Your task to perform on an android device: check google app version Image 0: 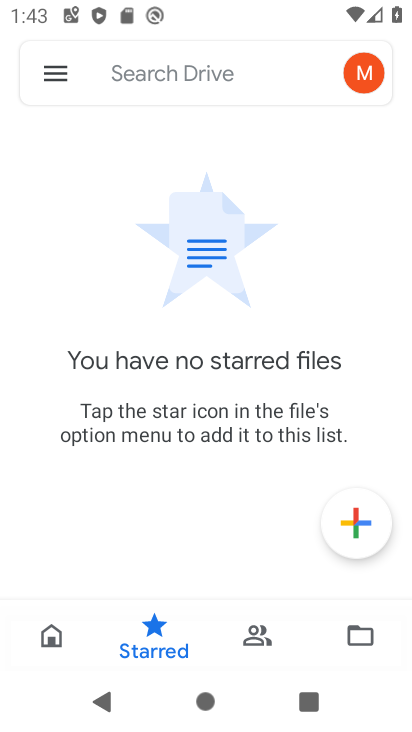
Step 0: press home button
Your task to perform on an android device: check google app version Image 1: 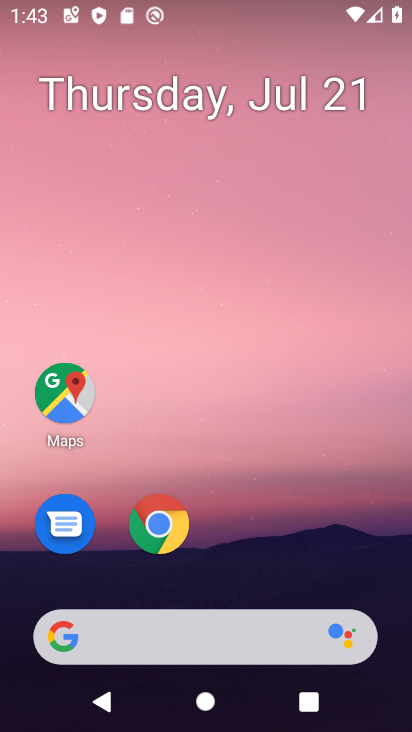
Step 1: drag from (257, 507) to (245, 6)
Your task to perform on an android device: check google app version Image 2: 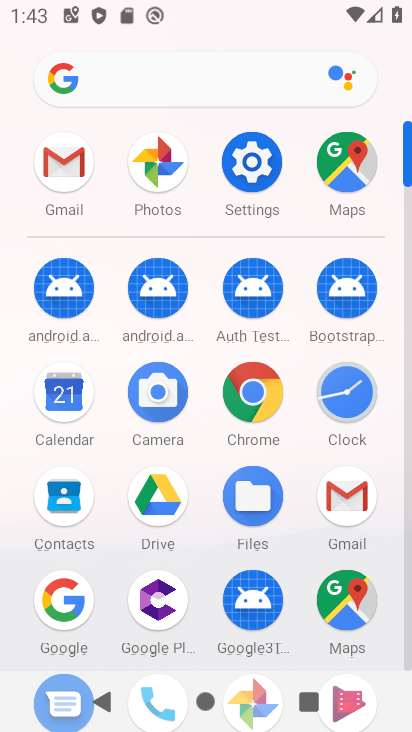
Step 2: click (67, 599)
Your task to perform on an android device: check google app version Image 3: 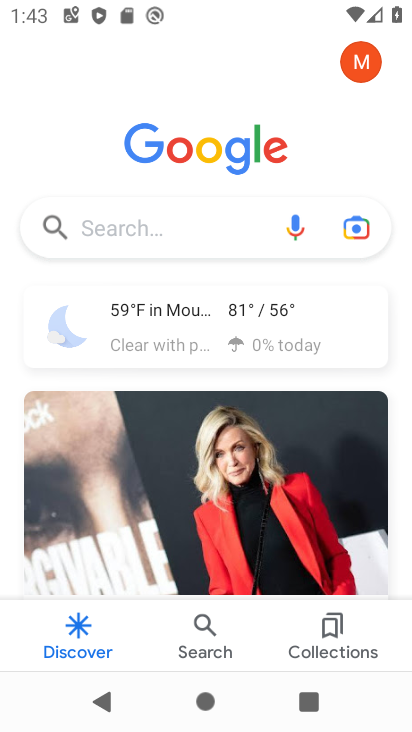
Step 3: click (374, 61)
Your task to perform on an android device: check google app version Image 4: 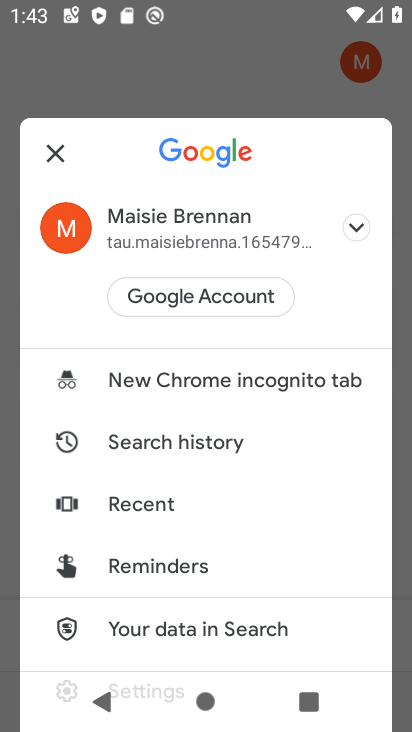
Step 4: drag from (207, 545) to (239, 200)
Your task to perform on an android device: check google app version Image 5: 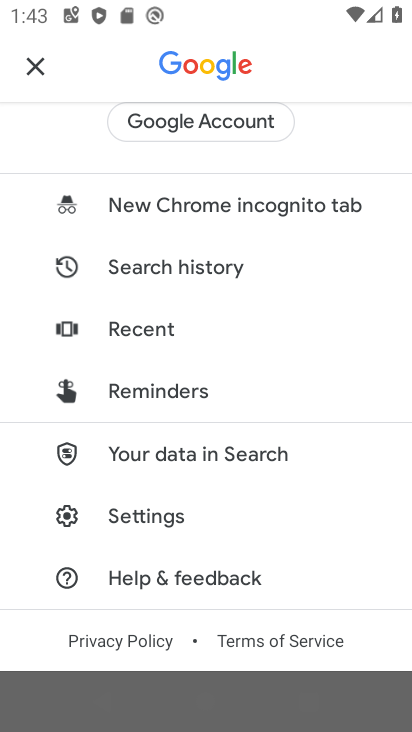
Step 5: click (144, 506)
Your task to perform on an android device: check google app version Image 6: 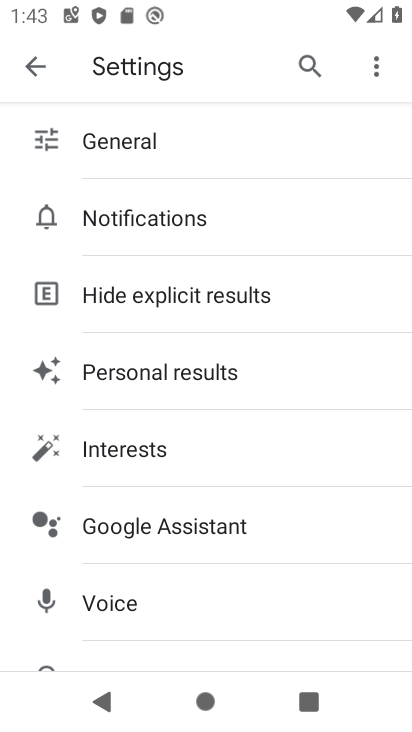
Step 6: drag from (226, 565) to (226, 283)
Your task to perform on an android device: check google app version Image 7: 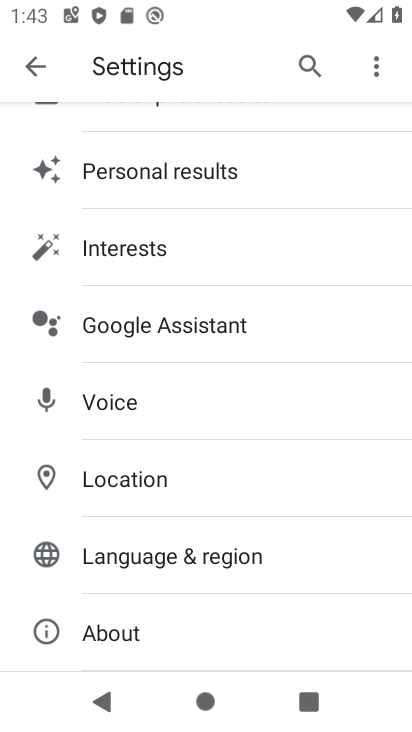
Step 7: click (124, 617)
Your task to perform on an android device: check google app version Image 8: 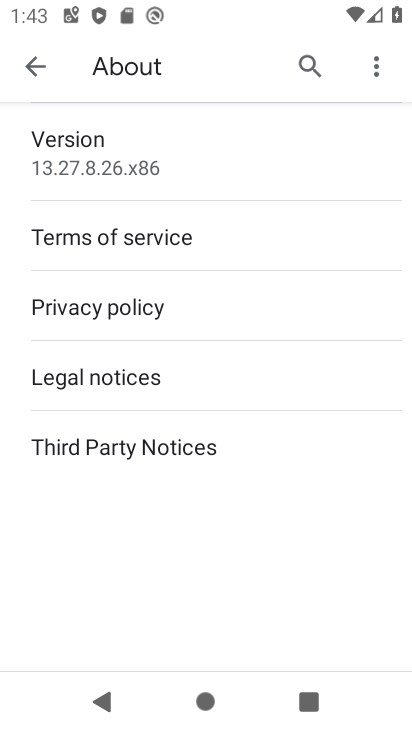
Step 8: task complete